Your task to perform on an android device: Search for sushi restaurants on Maps Image 0: 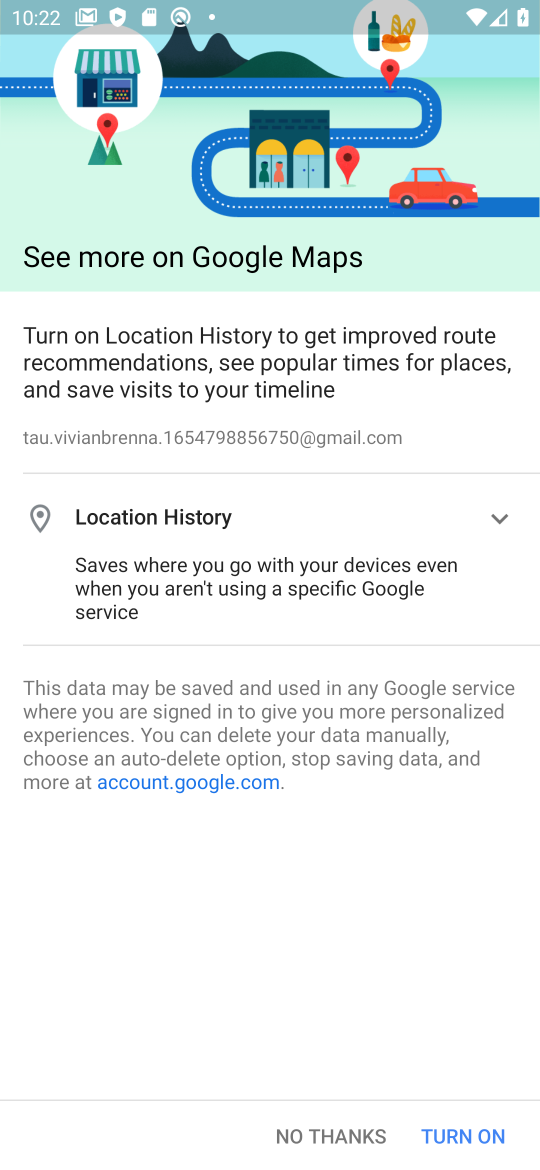
Step 0: press home button
Your task to perform on an android device: Search for sushi restaurants on Maps Image 1: 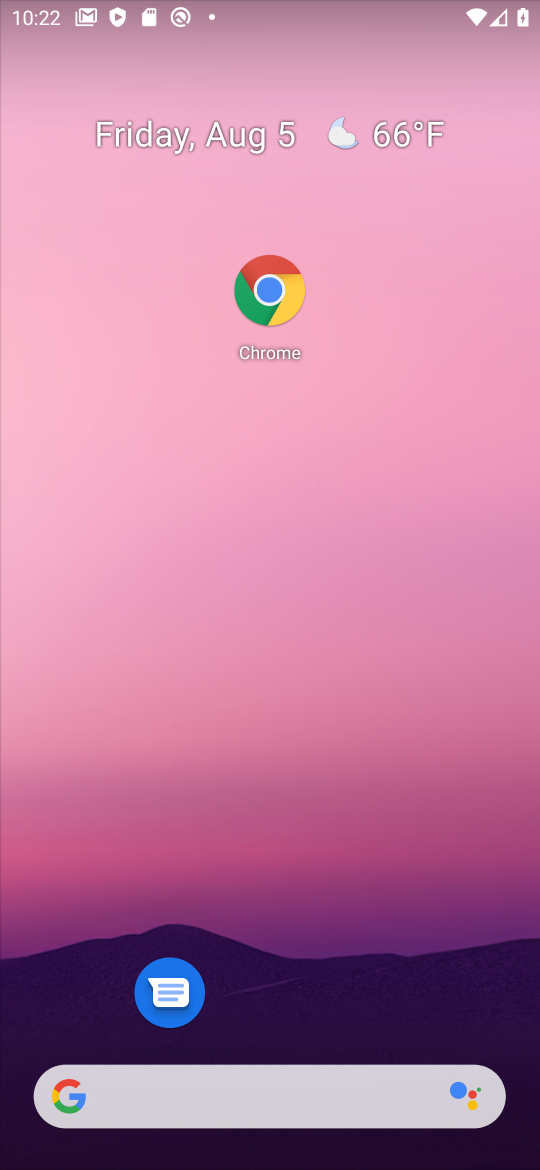
Step 1: drag from (314, 1015) to (159, 170)
Your task to perform on an android device: Search for sushi restaurants on Maps Image 2: 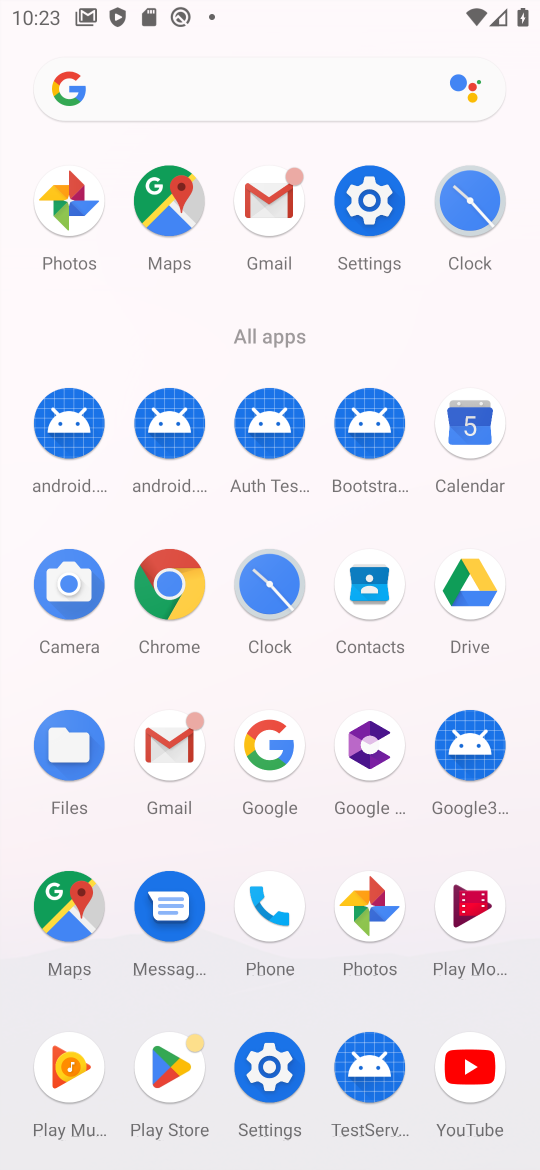
Step 2: click (48, 915)
Your task to perform on an android device: Search for sushi restaurants on Maps Image 3: 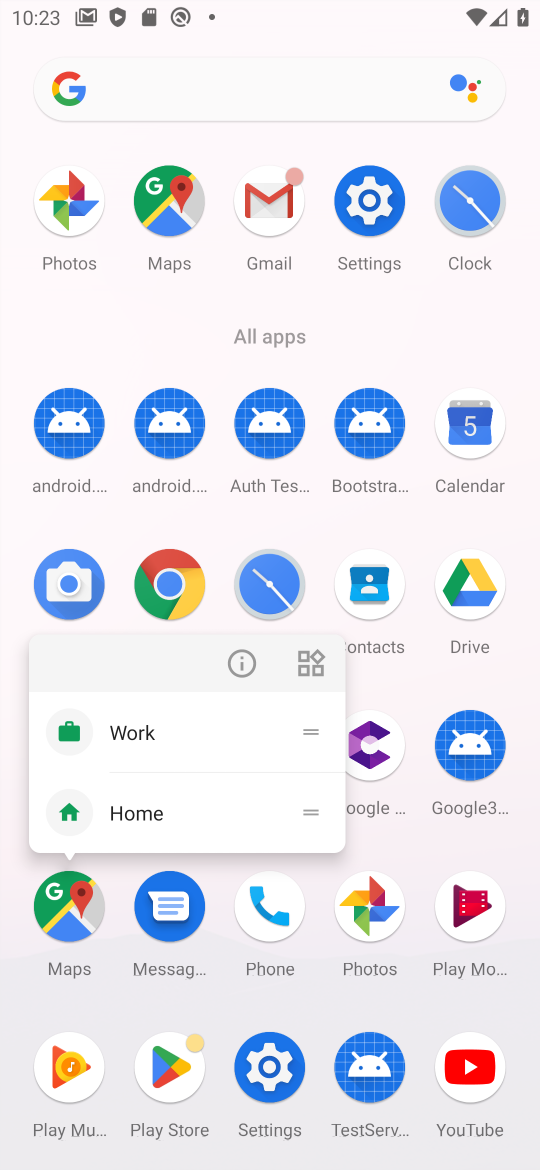
Step 3: click (51, 928)
Your task to perform on an android device: Search for sushi restaurants on Maps Image 4: 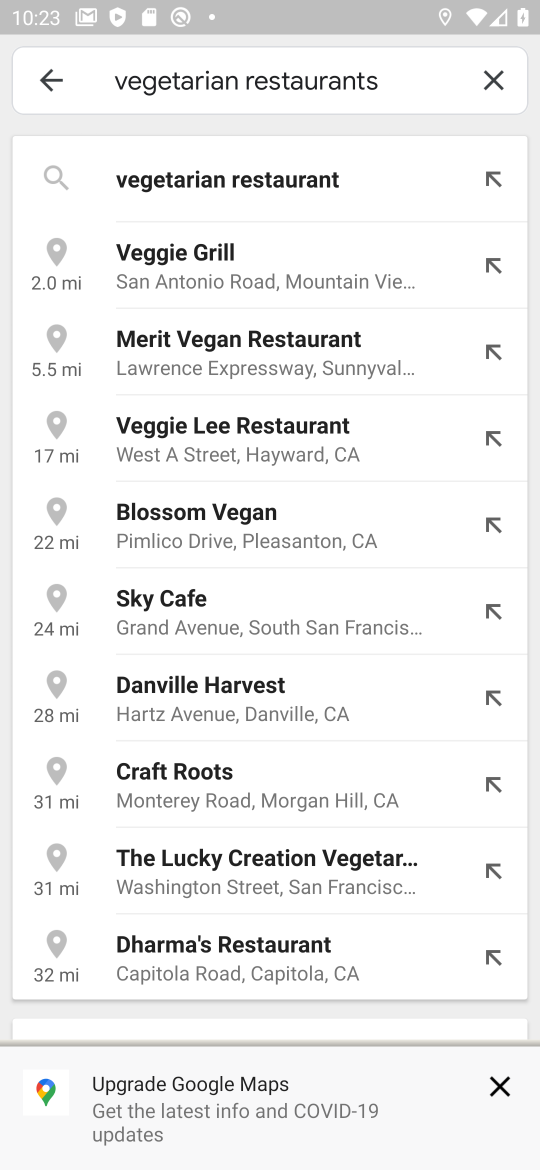
Step 4: click (494, 81)
Your task to perform on an android device: Search for sushi restaurants on Maps Image 5: 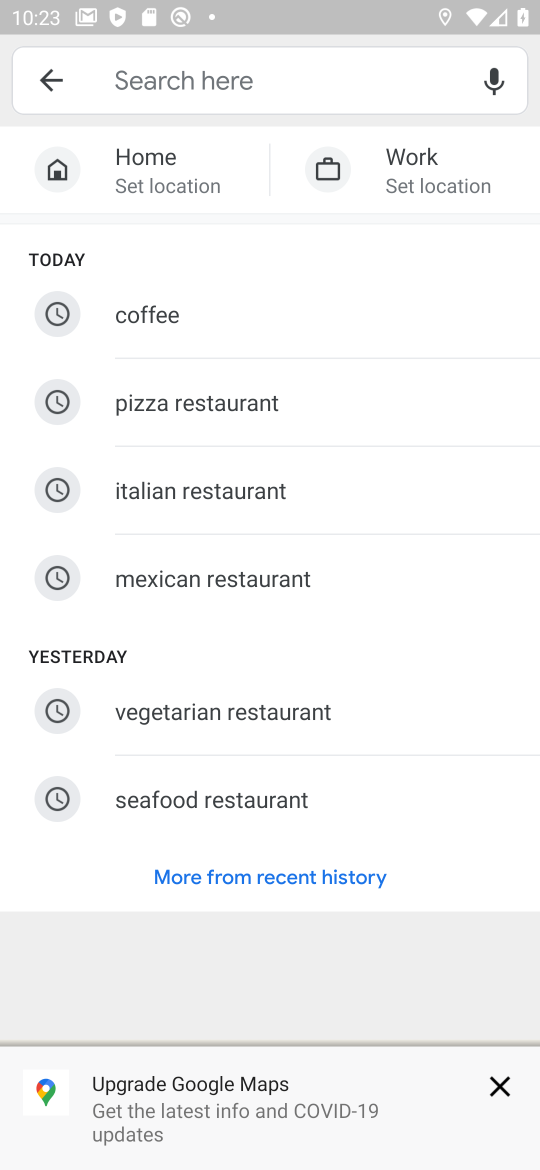
Step 5: click (152, 83)
Your task to perform on an android device: Search for sushi restaurants on Maps Image 6: 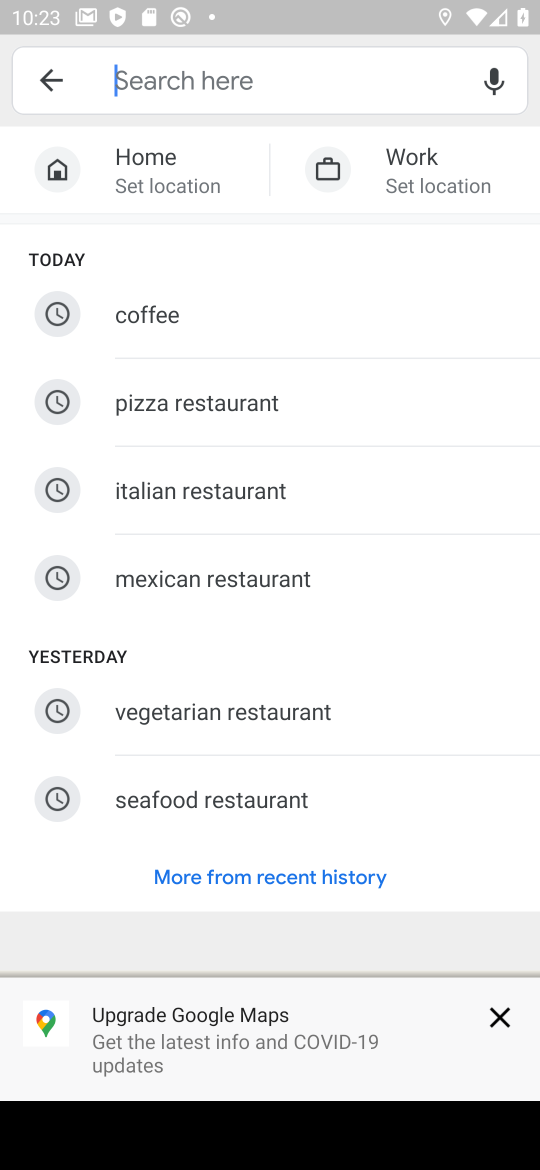
Step 6: type " sushi restaurants"
Your task to perform on an android device: Search for sushi restaurants on Maps Image 7: 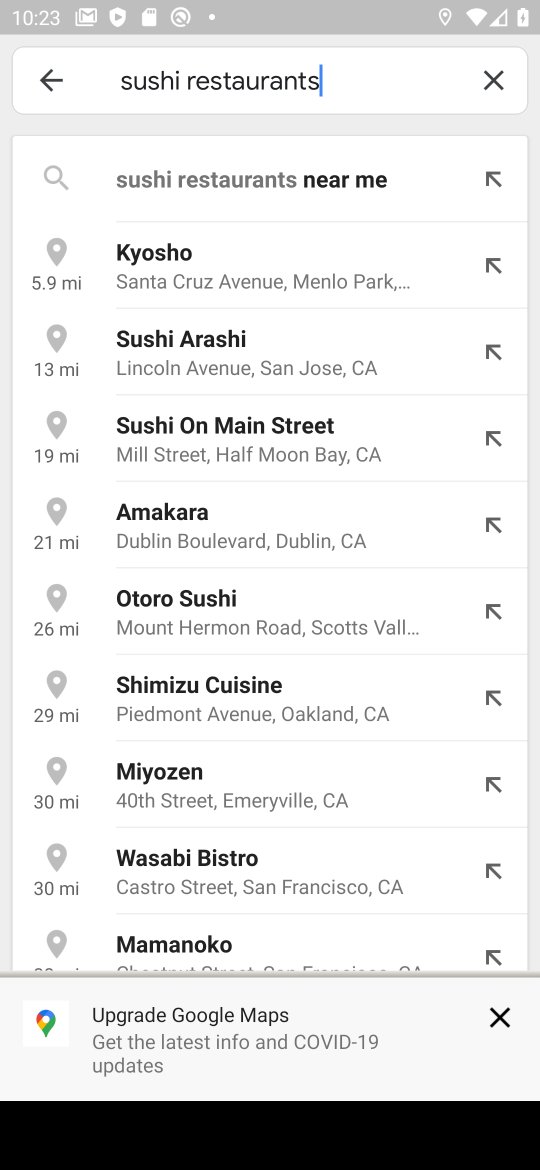
Step 7: press enter
Your task to perform on an android device: Search for sushi restaurants on Maps Image 8: 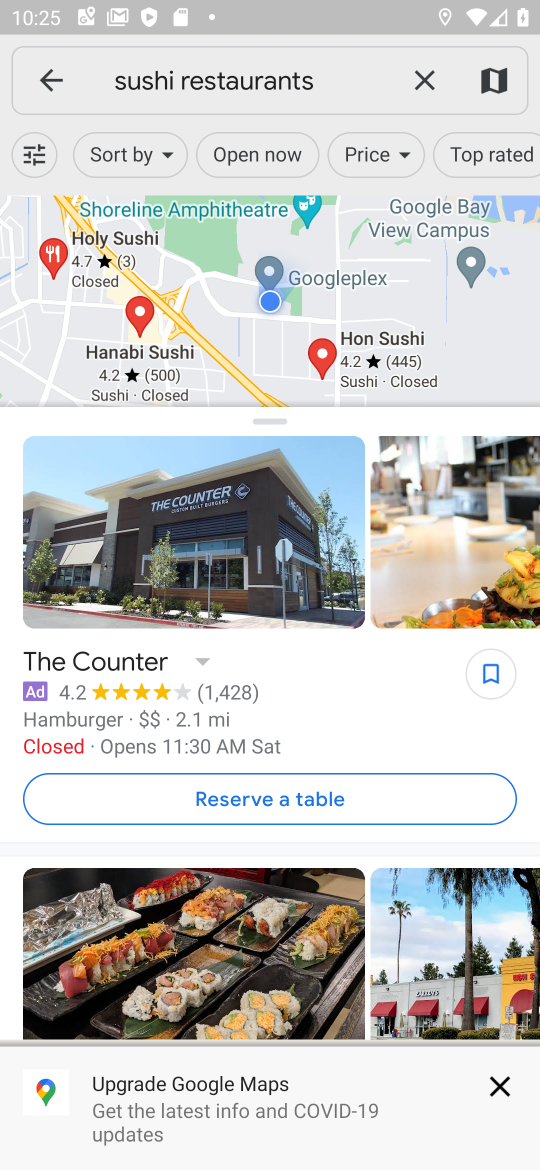
Step 8: task complete